Your task to perform on an android device: star an email in the gmail app Image 0: 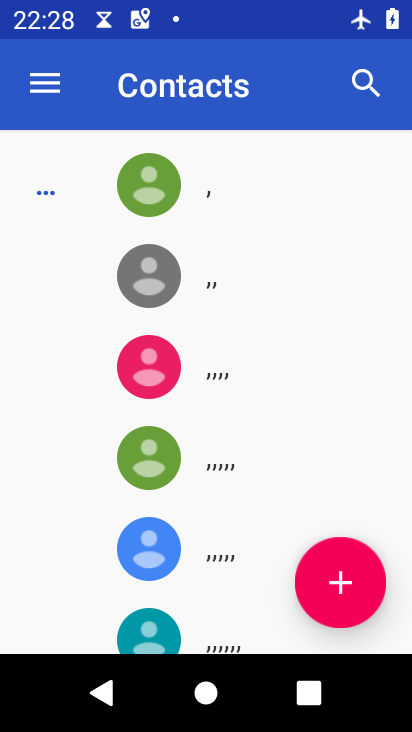
Step 0: drag from (167, 617) to (194, 142)
Your task to perform on an android device: star an email in the gmail app Image 1: 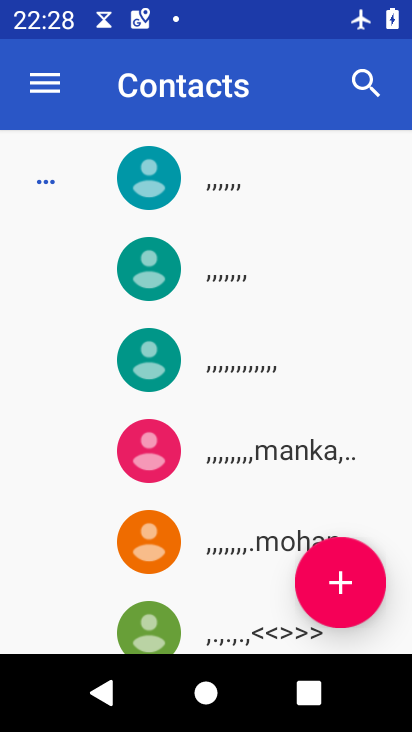
Step 1: press home button
Your task to perform on an android device: star an email in the gmail app Image 2: 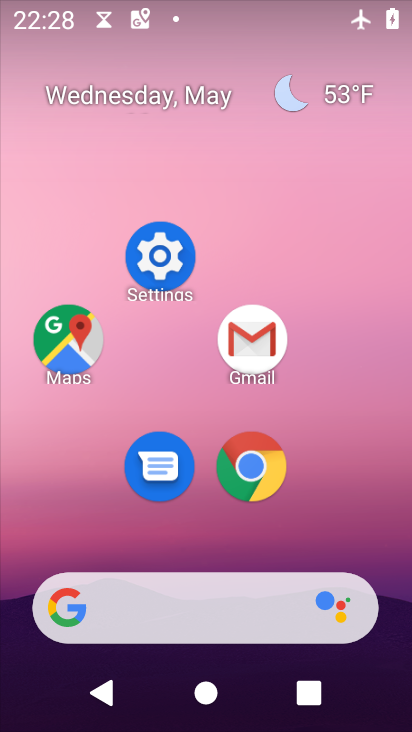
Step 2: drag from (195, 545) to (185, 215)
Your task to perform on an android device: star an email in the gmail app Image 3: 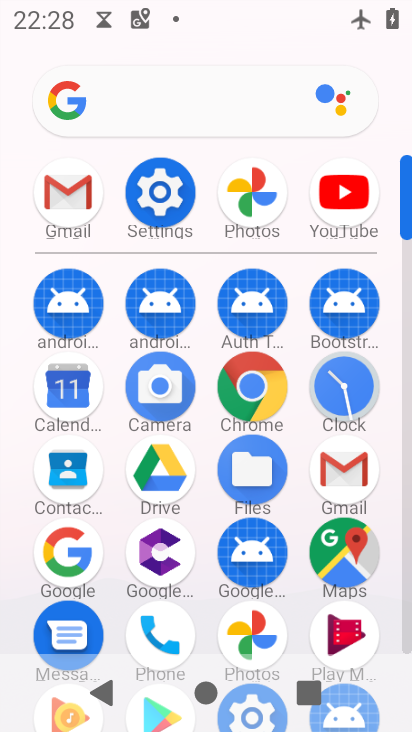
Step 3: click (81, 208)
Your task to perform on an android device: star an email in the gmail app Image 4: 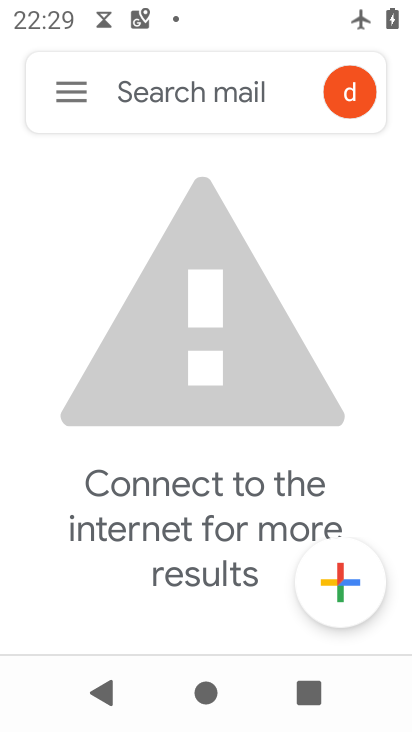
Step 4: click (81, 91)
Your task to perform on an android device: star an email in the gmail app Image 5: 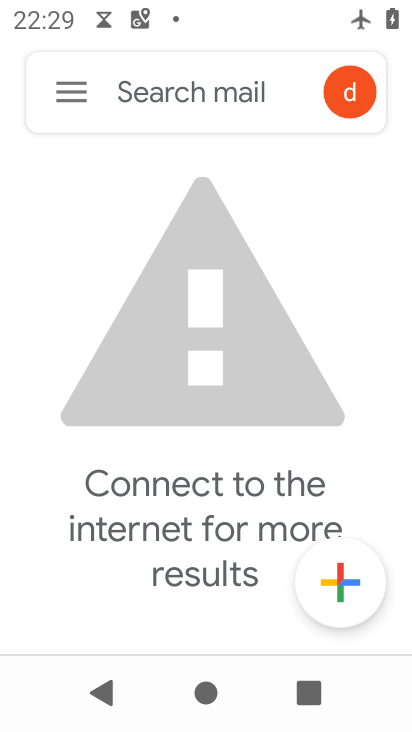
Step 5: click (81, 91)
Your task to perform on an android device: star an email in the gmail app Image 6: 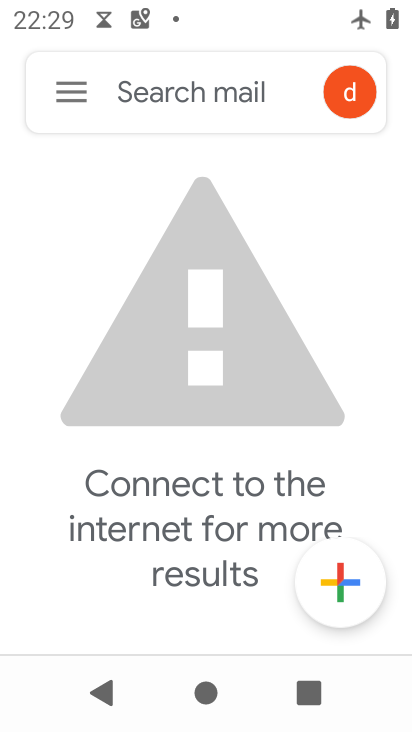
Step 6: click (73, 94)
Your task to perform on an android device: star an email in the gmail app Image 7: 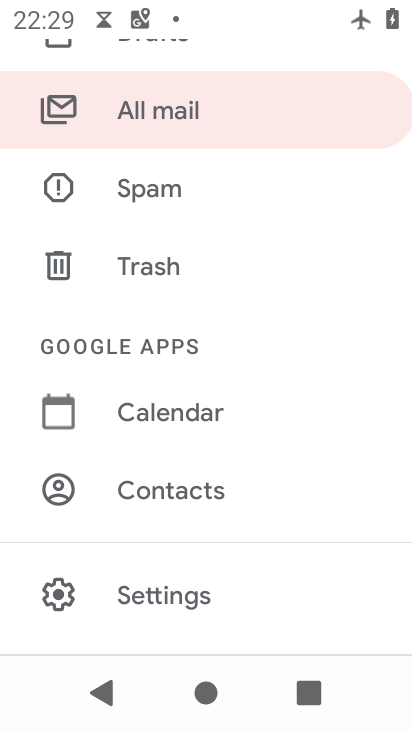
Step 7: task complete